Your task to perform on an android device: toggle improve location accuracy Image 0: 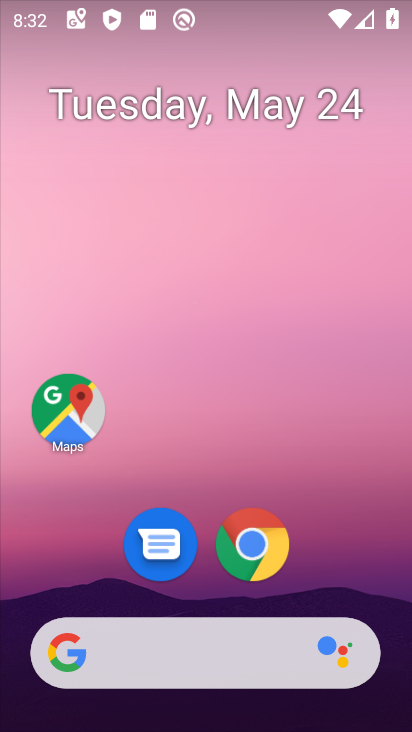
Step 0: drag from (357, 588) to (334, 173)
Your task to perform on an android device: toggle improve location accuracy Image 1: 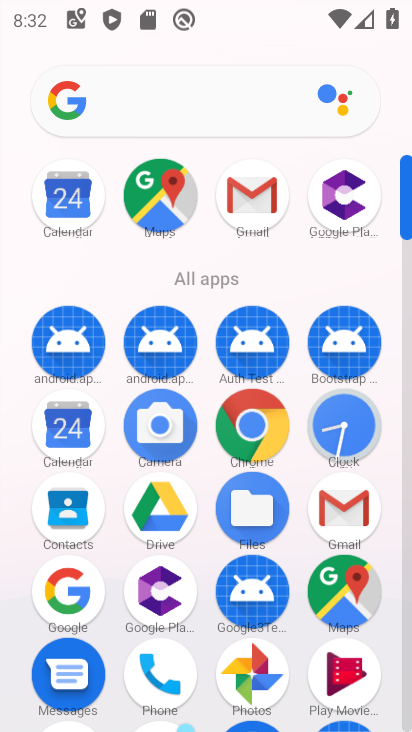
Step 1: click (405, 688)
Your task to perform on an android device: toggle improve location accuracy Image 2: 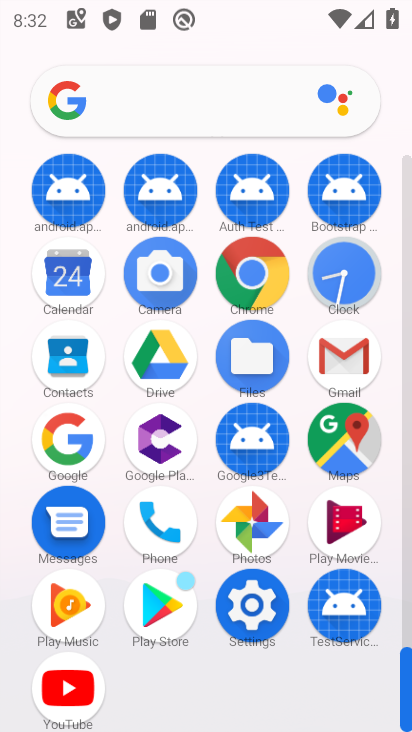
Step 2: click (268, 601)
Your task to perform on an android device: toggle improve location accuracy Image 3: 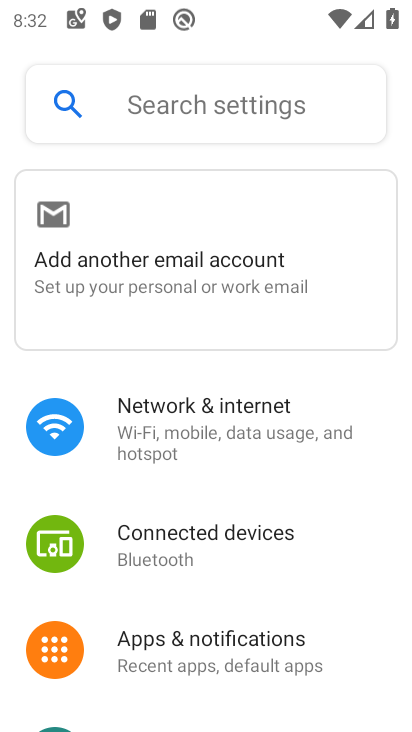
Step 3: drag from (295, 695) to (239, 288)
Your task to perform on an android device: toggle improve location accuracy Image 4: 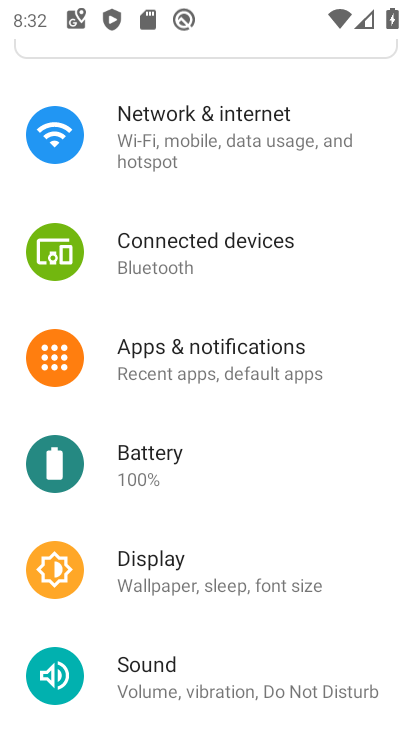
Step 4: drag from (255, 660) to (222, 301)
Your task to perform on an android device: toggle improve location accuracy Image 5: 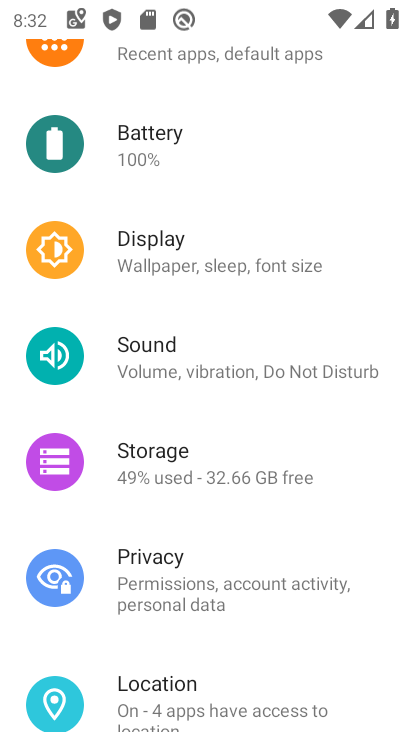
Step 5: click (239, 682)
Your task to perform on an android device: toggle improve location accuracy Image 6: 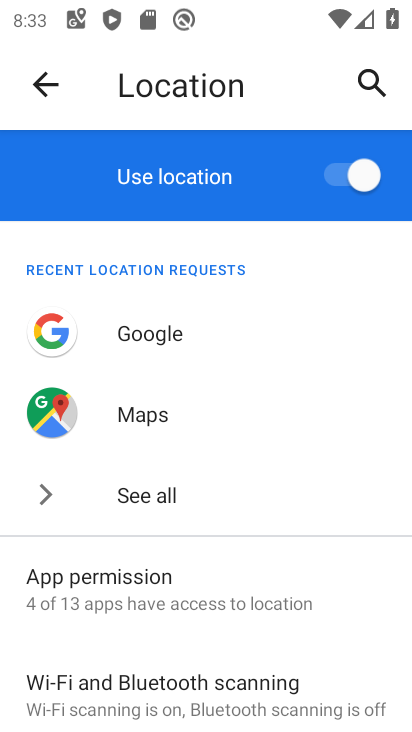
Step 6: drag from (256, 629) to (231, 259)
Your task to perform on an android device: toggle improve location accuracy Image 7: 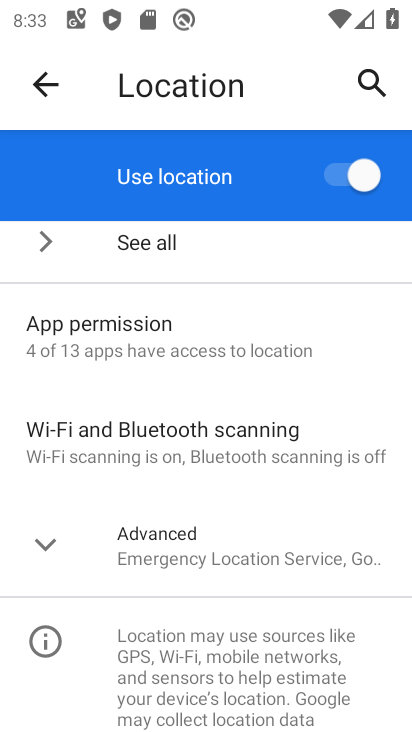
Step 7: click (254, 552)
Your task to perform on an android device: toggle improve location accuracy Image 8: 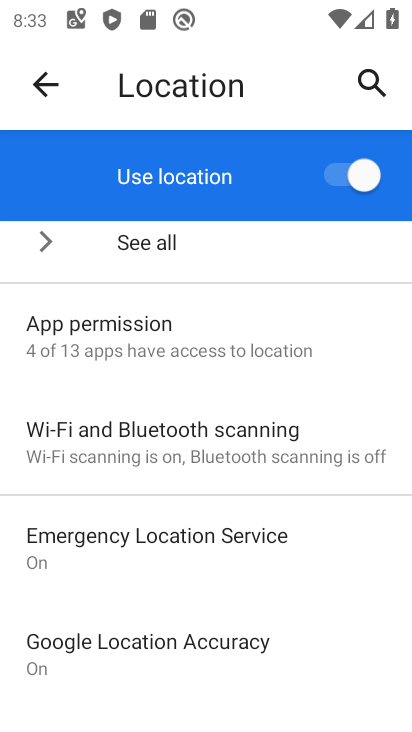
Step 8: drag from (298, 623) to (226, 329)
Your task to perform on an android device: toggle improve location accuracy Image 9: 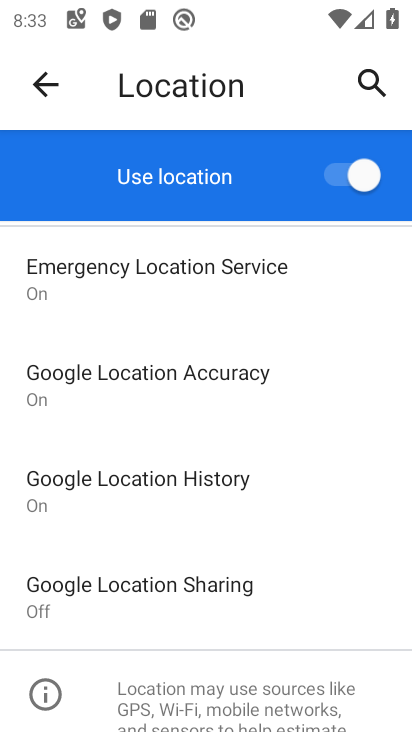
Step 9: click (226, 381)
Your task to perform on an android device: toggle improve location accuracy Image 10: 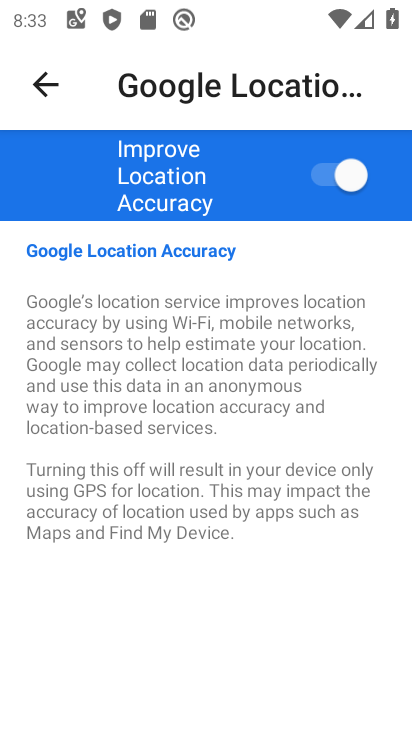
Step 10: click (315, 198)
Your task to perform on an android device: toggle improve location accuracy Image 11: 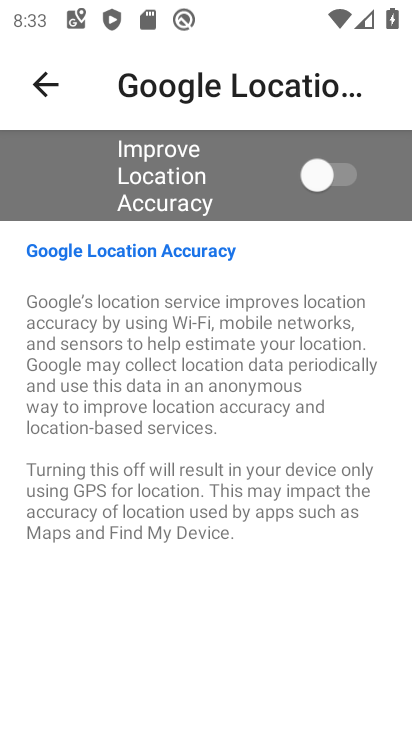
Step 11: task complete